Your task to perform on an android device: open app "Facebook Lite" (install if not already installed) Image 0: 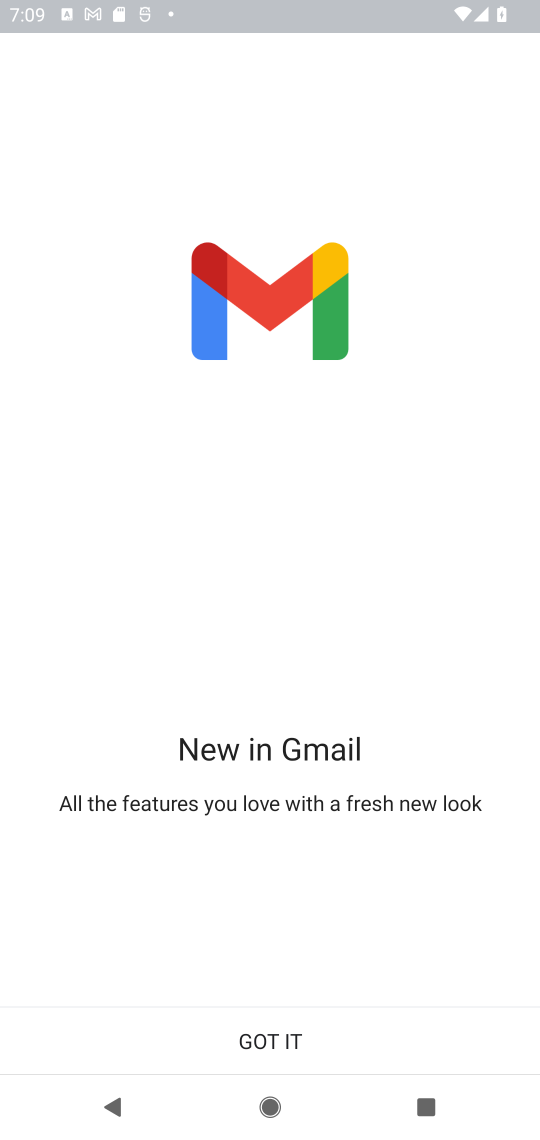
Step 0: press back button
Your task to perform on an android device: open app "Facebook Lite" (install if not already installed) Image 1: 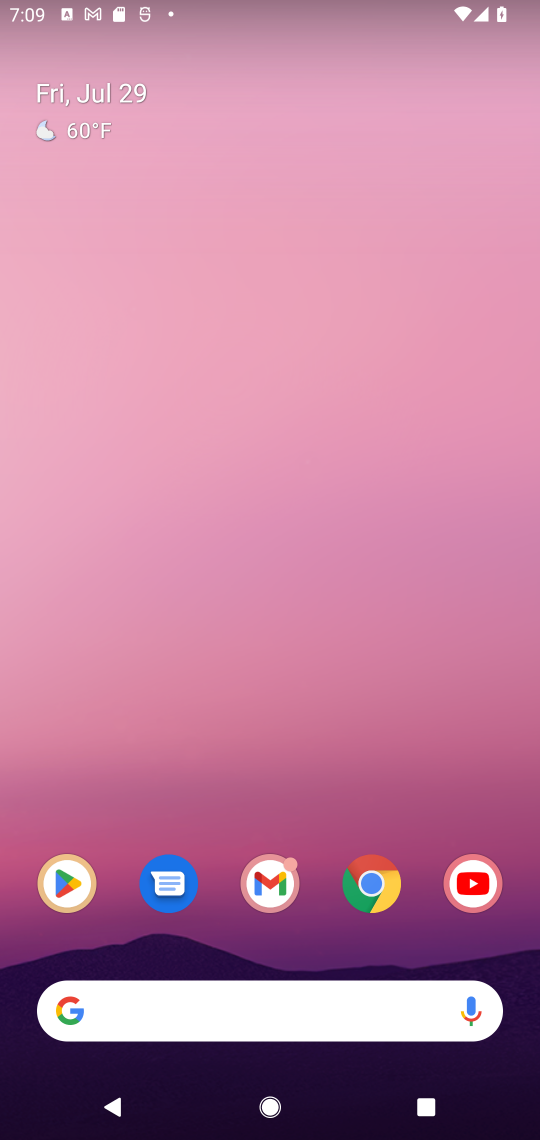
Step 1: click (72, 885)
Your task to perform on an android device: open app "Facebook Lite" (install if not already installed) Image 2: 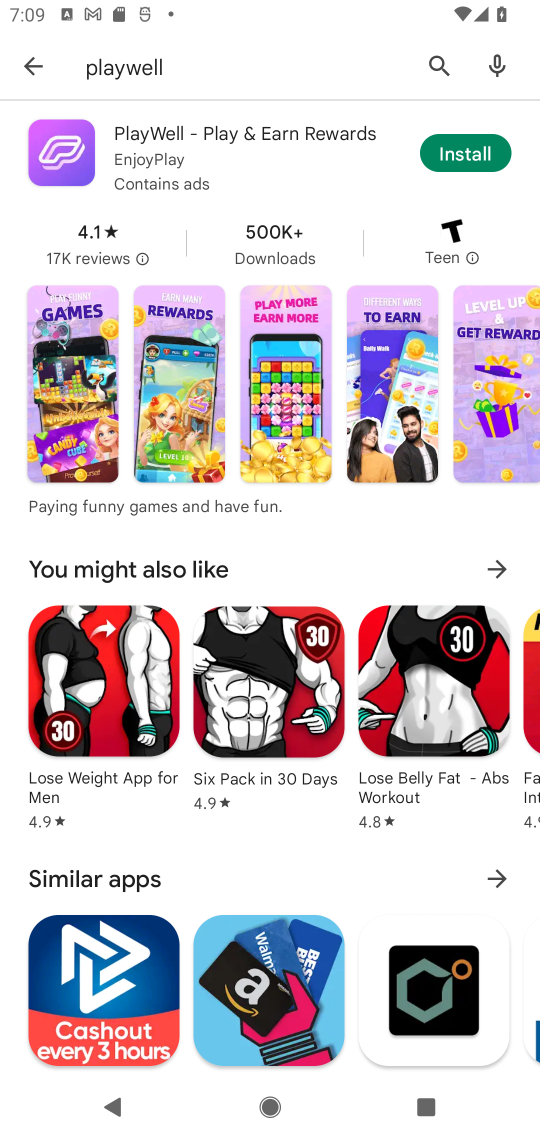
Step 2: click (434, 61)
Your task to perform on an android device: open app "Facebook Lite" (install if not already installed) Image 3: 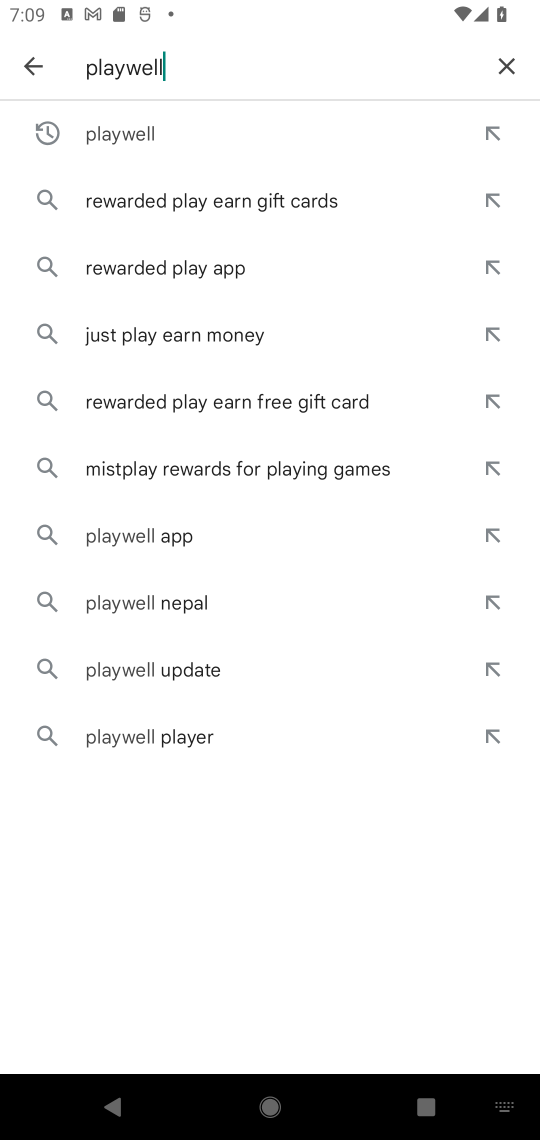
Step 3: click (505, 67)
Your task to perform on an android device: open app "Facebook Lite" (install if not already installed) Image 4: 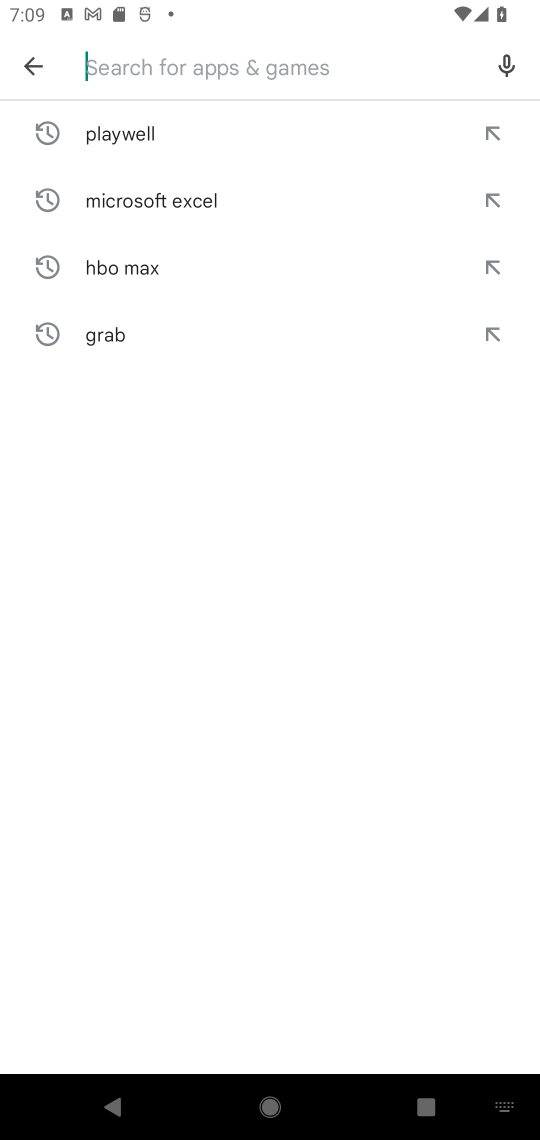
Step 4: click (170, 65)
Your task to perform on an android device: open app "Facebook Lite" (install if not already installed) Image 5: 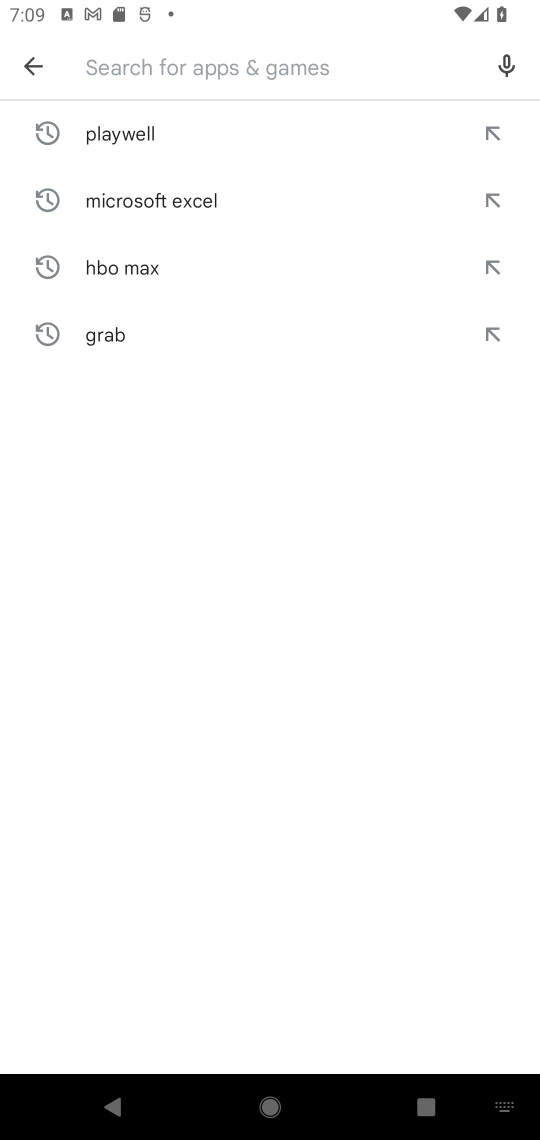
Step 5: type "facebook lite"
Your task to perform on an android device: open app "Facebook Lite" (install if not already installed) Image 6: 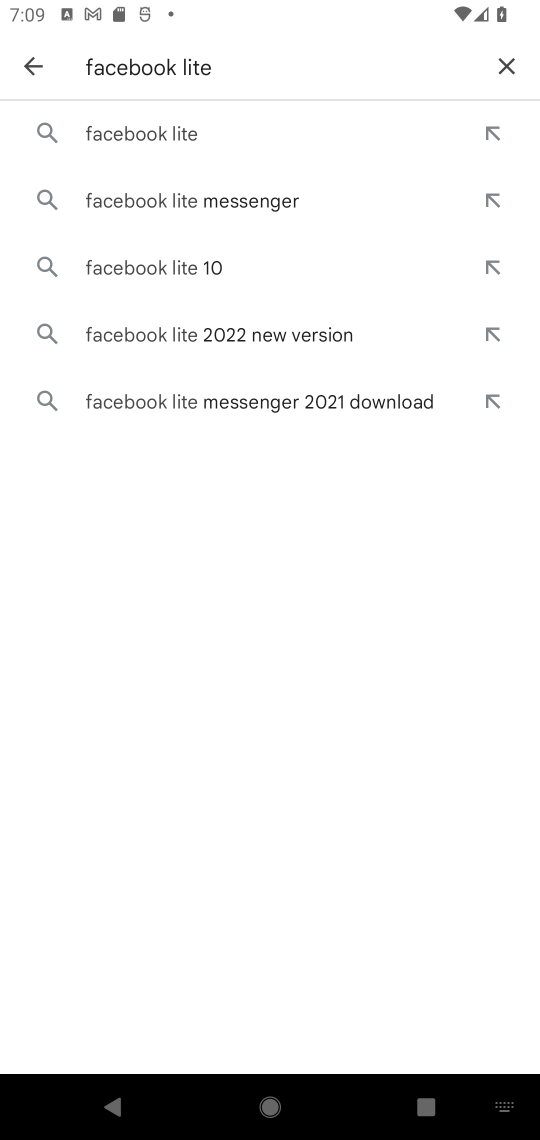
Step 6: click (235, 133)
Your task to perform on an android device: open app "Facebook Lite" (install if not already installed) Image 7: 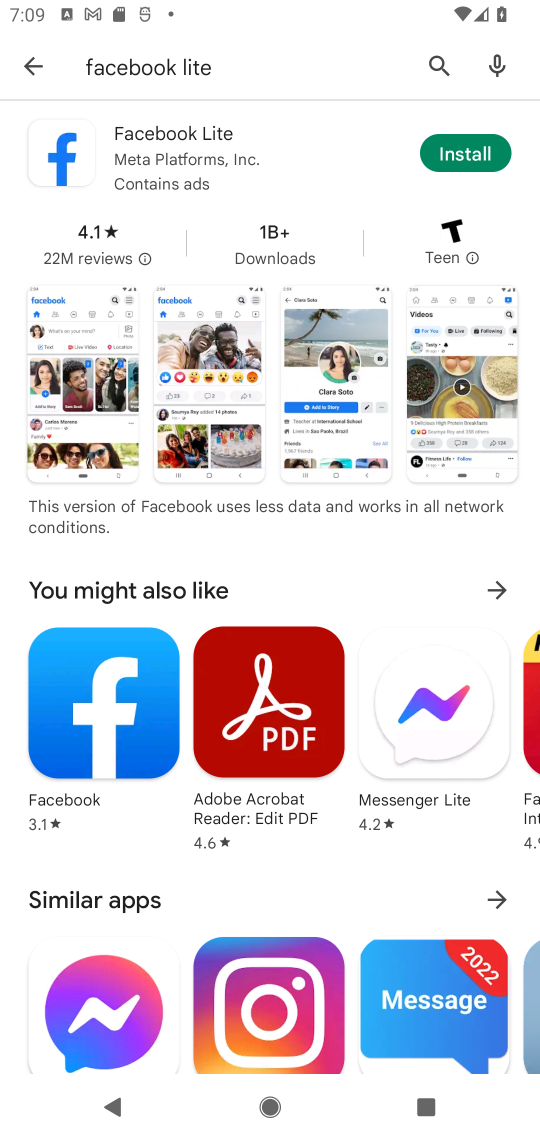
Step 7: click (474, 151)
Your task to perform on an android device: open app "Facebook Lite" (install if not already installed) Image 8: 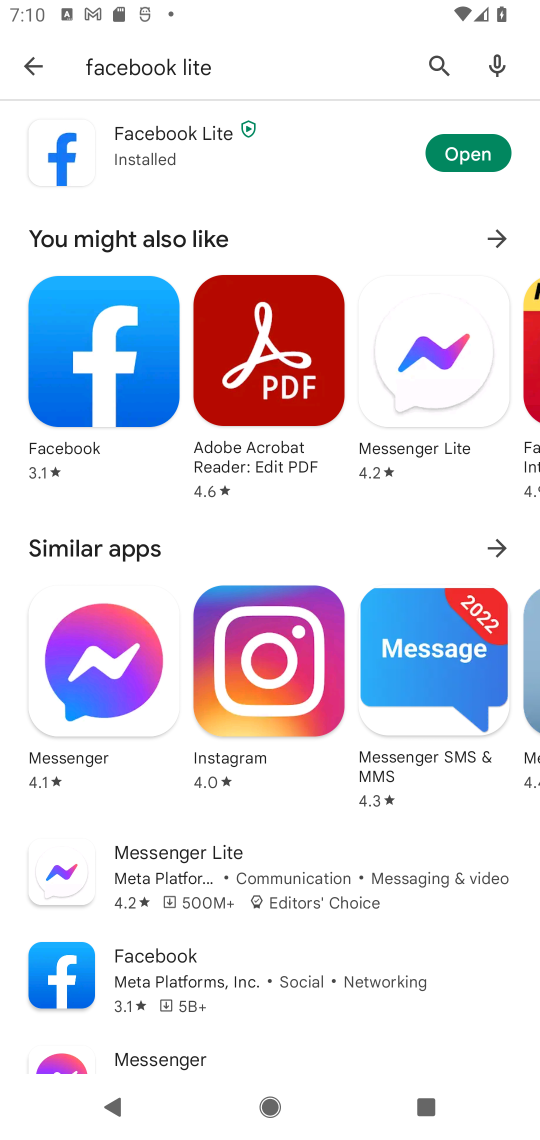
Step 8: click (463, 150)
Your task to perform on an android device: open app "Facebook Lite" (install if not already installed) Image 9: 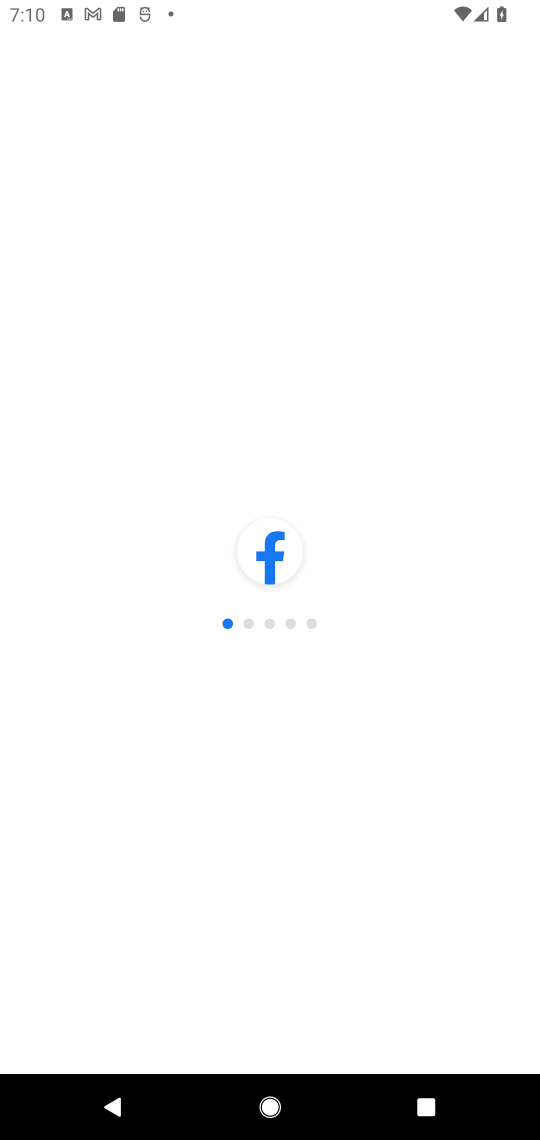
Step 9: task complete